Your task to perform on an android device: See recent photos Image 0: 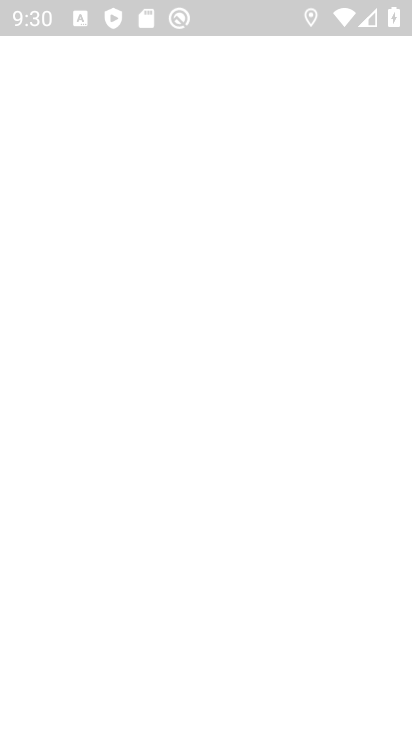
Step 0: click (279, 649)
Your task to perform on an android device: See recent photos Image 1: 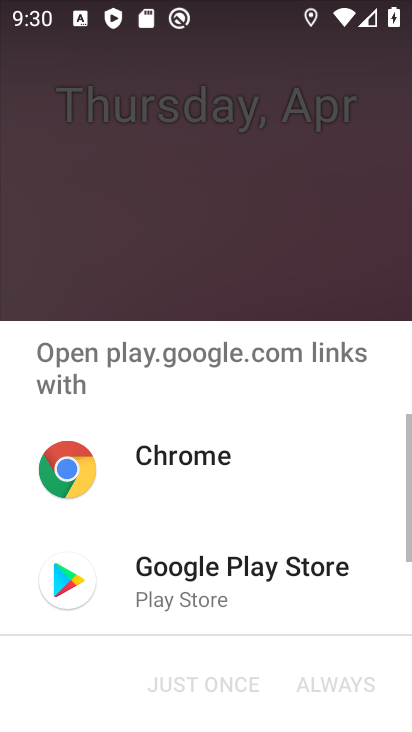
Step 1: press home button
Your task to perform on an android device: See recent photos Image 2: 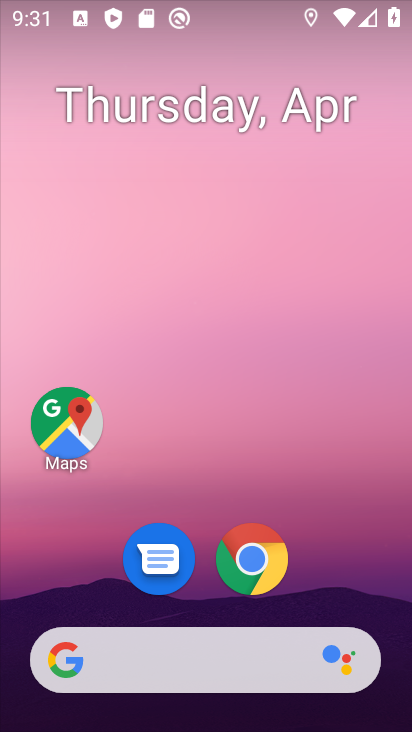
Step 2: drag from (251, 718) to (194, 31)
Your task to perform on an android device: See recent photos Image 3: 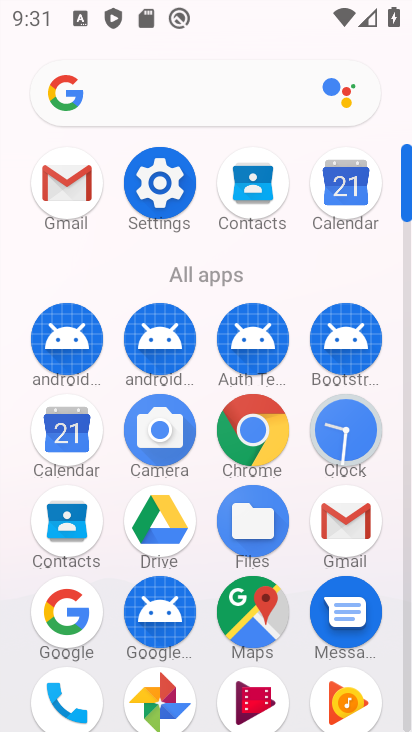
Step 3: click (153, 703)
Your task to perform on an android device: See recent photos Image 4: 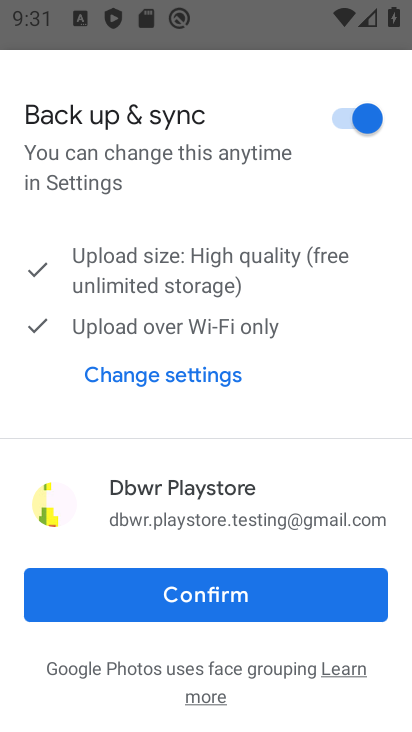
Step 4: click (342, 597)
Your task to perform on an android device: See recent photos Image 5: 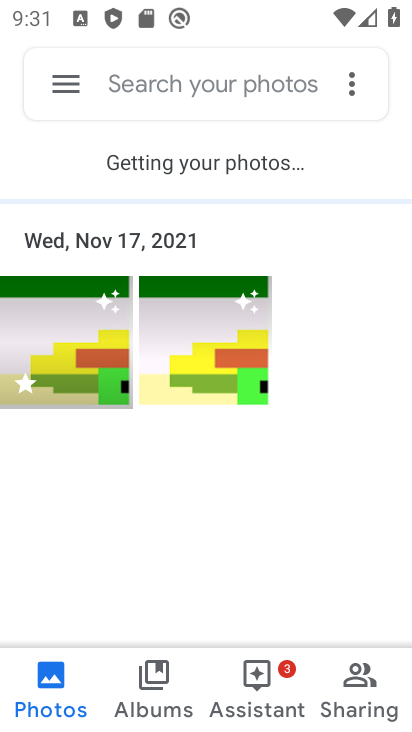
Step 5: task complete